Your task to perform on an android device: Go to eBay Image 0: 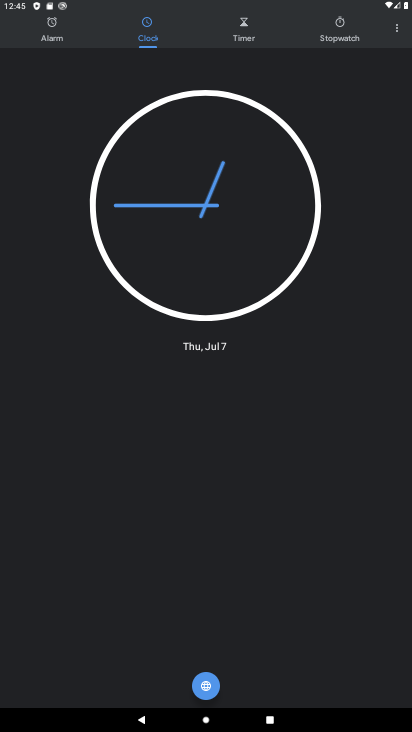
Step 0: press home button
Your task to perform on an android device: Go to eBay Image 1: 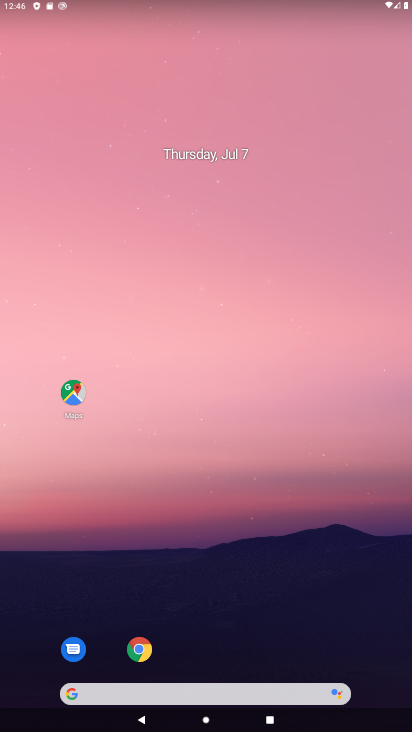
Step 1: drag from (201, 667) to (77, 108)
Your task to perform on an android device: Go to eBay Image 2: 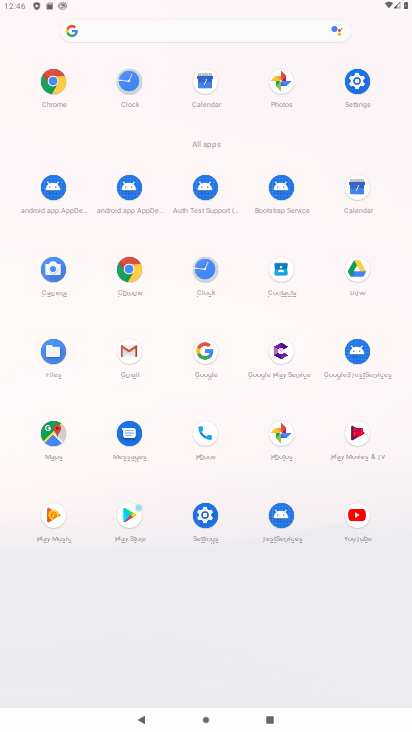
Step 2: click (53, 73)
Your task to perform on an android device: Go to eBay Image 3: 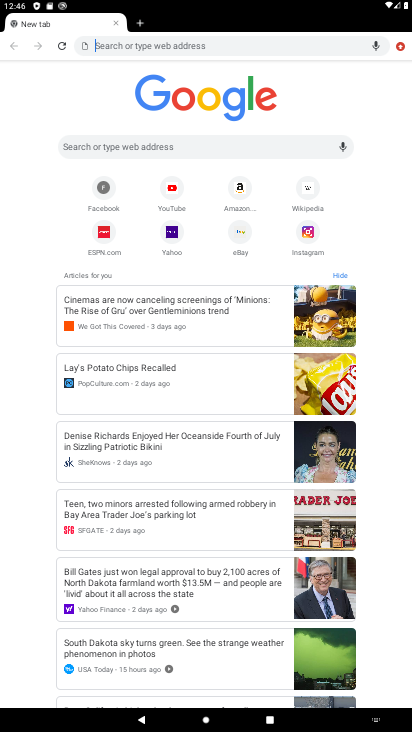
Step 3: click (250, 231)
Your task to perform on an android device: Go to eBay Image 4: 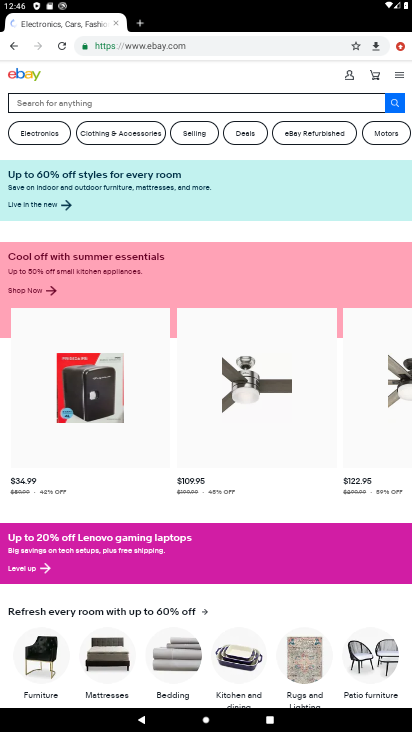
Step 4: task complete